Your task to perform on an android device: all mails in gmail Image 0: 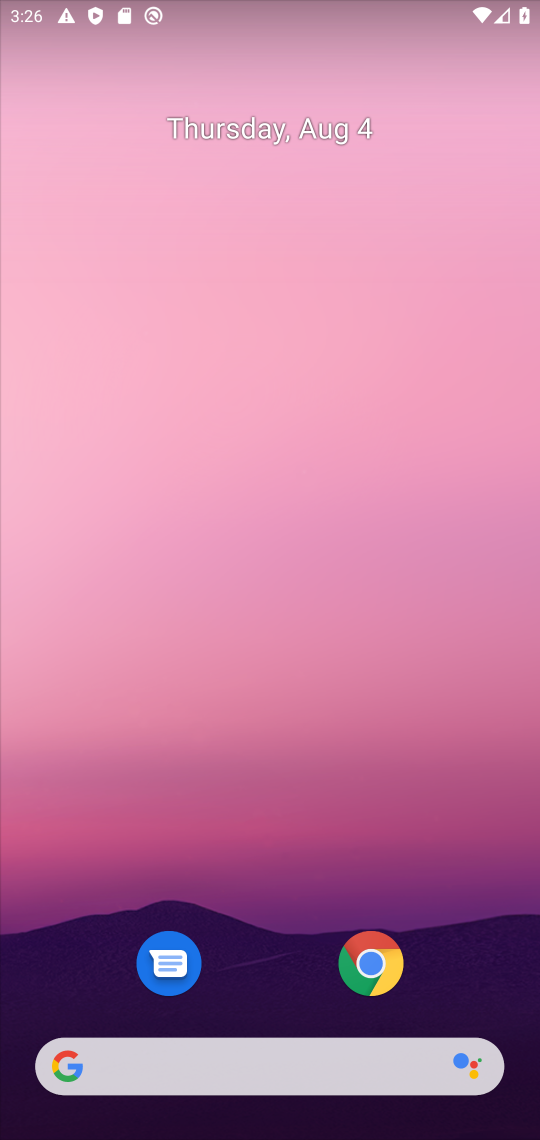
Step 0: drag from (476, 788) to (507, 28)
Your task to perform on an android device: all mails in gmail Image 1: 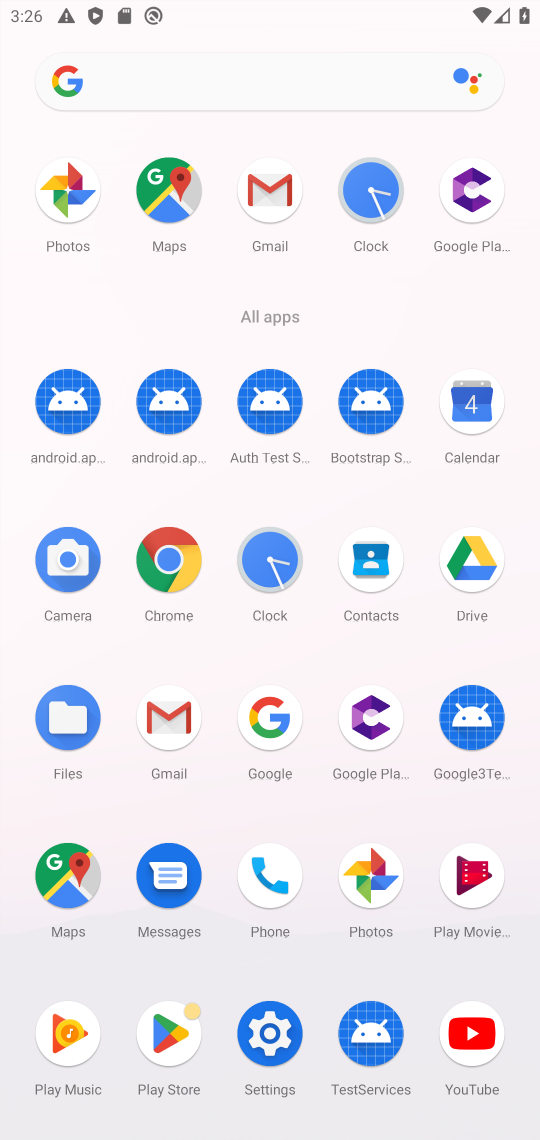
Step 1: click (268, 186)
Your task to perform on an android device: all mails in gmail Image 2: 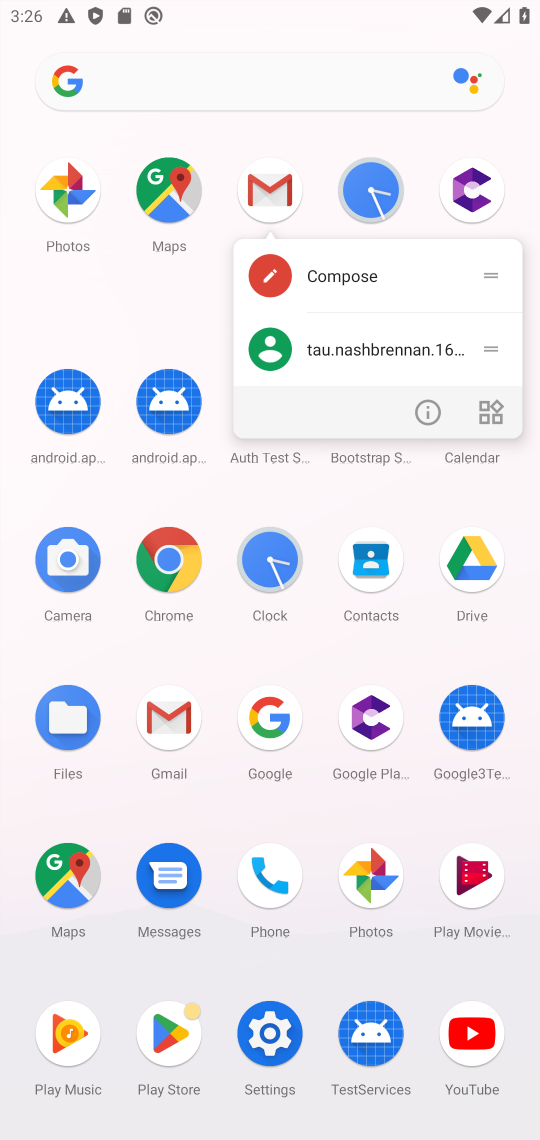
Step 2: click (268, 186)
Your task to perform on an android device: all mails in gmail Image 3: 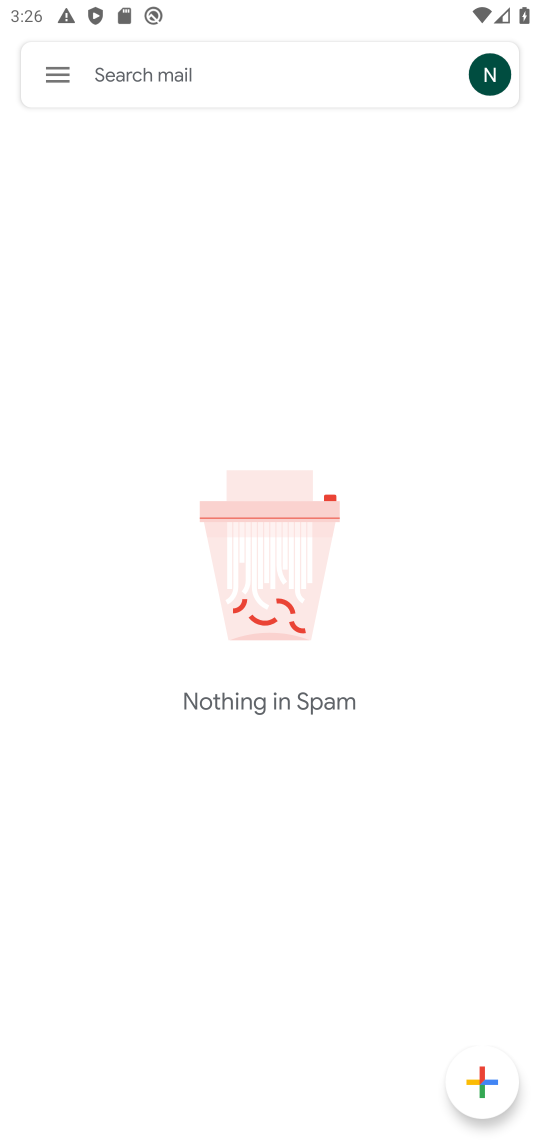
Step 3: click (59, 79)
Your task to perform on an android device: all mails in gmail Image 4: 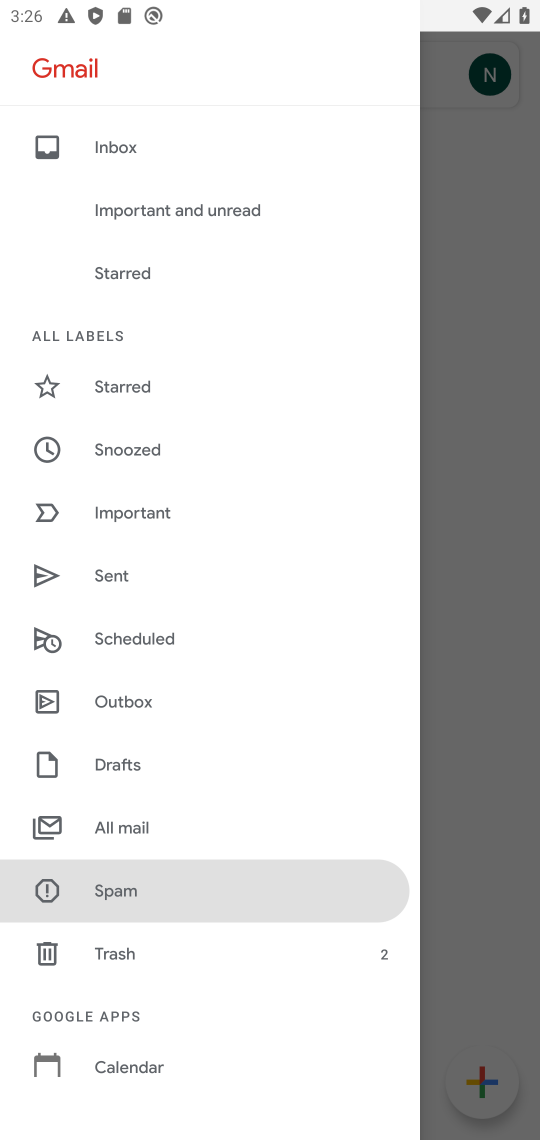
Step 4: click (139, 824)
Your task to perform on an android device: all mails in gmail Image 5: 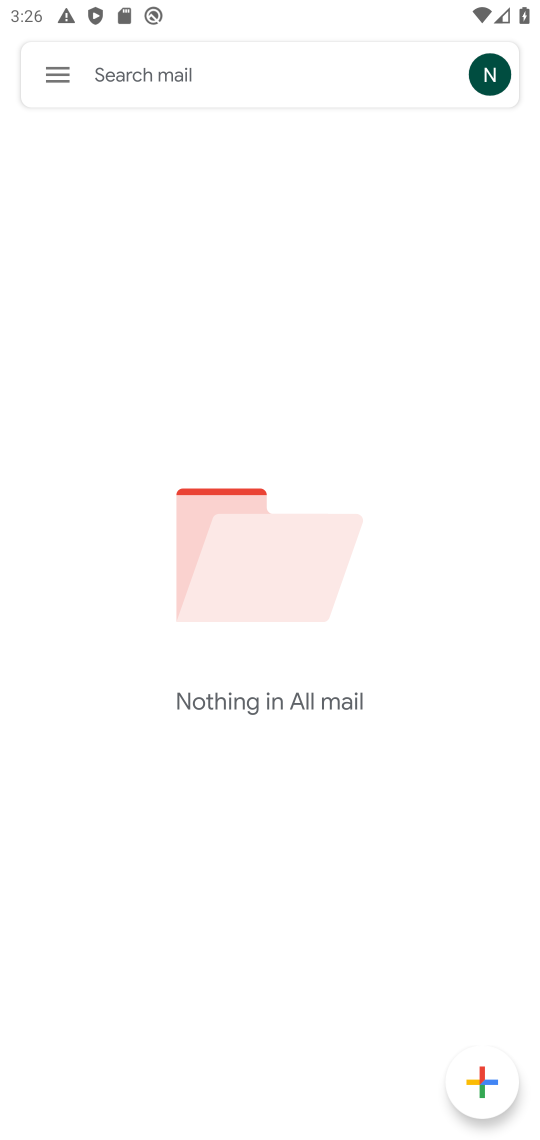
Step 5: task complete